Your task to perform on an android device: turn off location history Image 0: 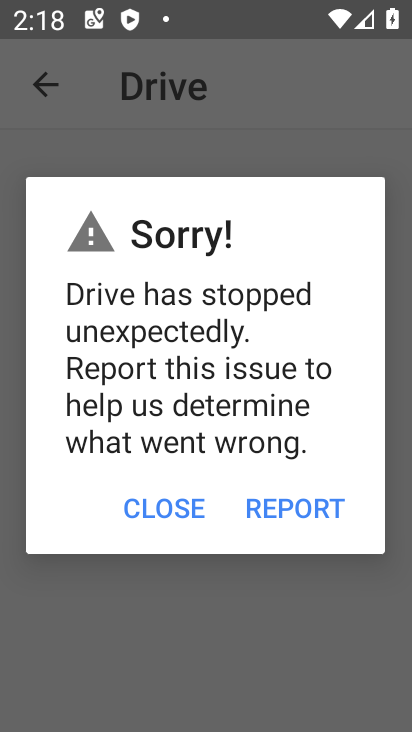
Step 0: press home button
Your task to perform on an android device: turn off location history Image 1: 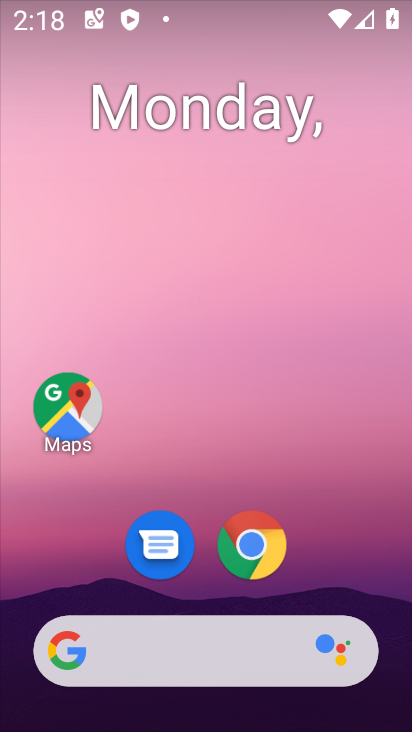
Step 1: drag from (195, 580) to (233, 101)
Your task to perform on an android device: turn off location history Image 2: 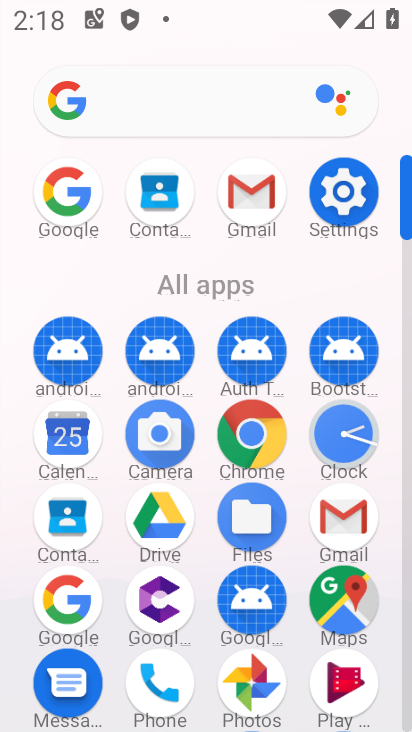
Step 2: click (342, 188)
Your task to perform on an android device: turn off location history Image 3: 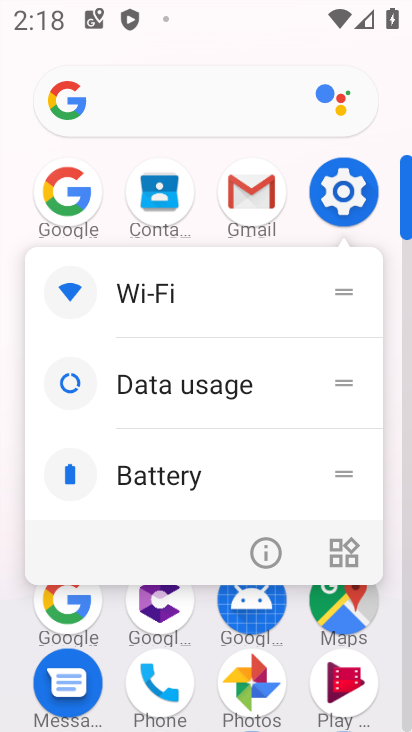
Step 3: click (341, 185)
Your task to perform on an android device: turn off location history Image 4: 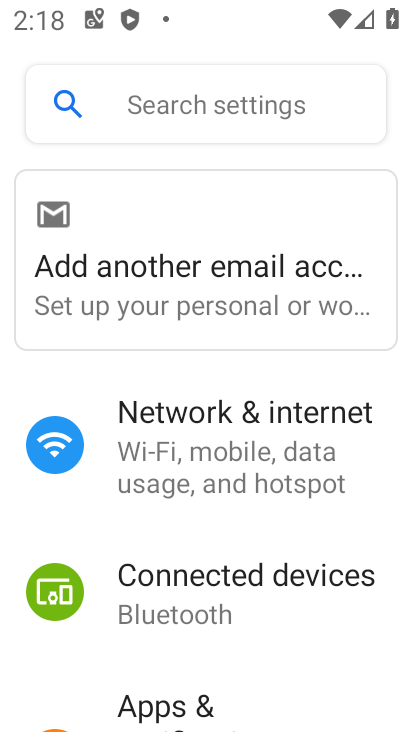
Step 4: drag from (180, 652) to (231, 154)
Your task to perform on an android device: turn off location history Image 5: 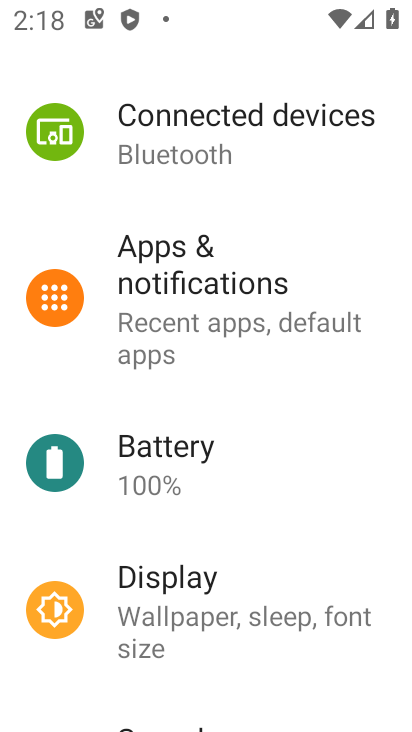
Step 5: drag from (162, 521) to (261, 125)
Your task to perform on an android device: turn off location history Image 6: 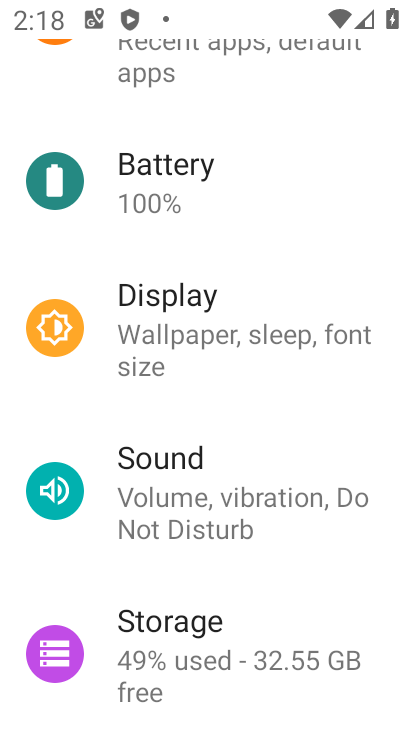
Step 6: drag from (173, 594) to (254, 111)
Your task to perform on an android device: turn off location history Image 7: 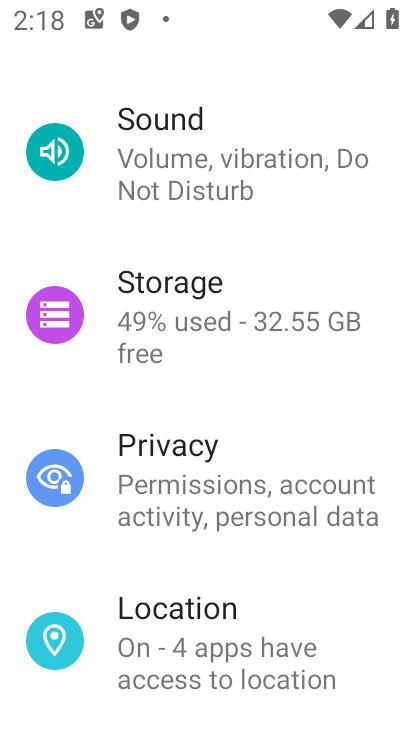
Step 7: click (162, 632)
Your task to perform on an android device: turn off location history Image 8: 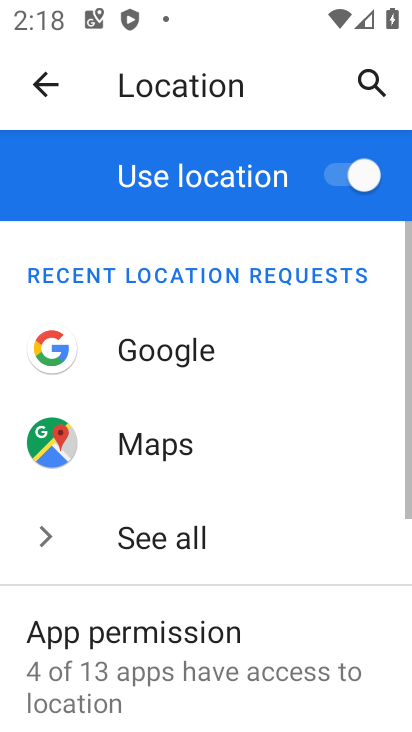
Step 8: drag from (139, 676) to (260, 162)
Your task to perform on an android device: turn off location history Image 9: 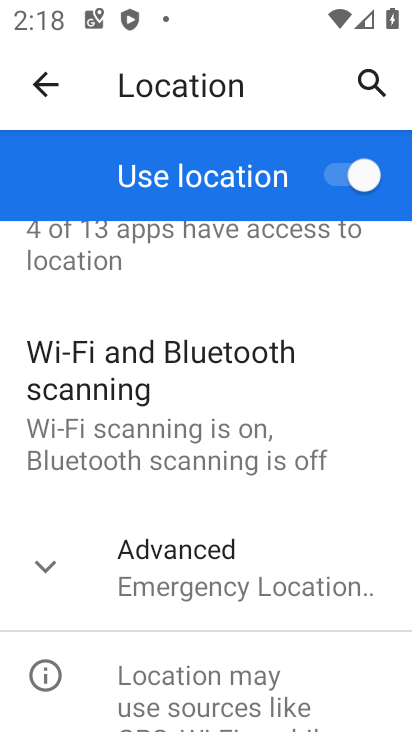
Step 9: click (216, 565)
Your task to perform on an android device: turn off location history Image 10: 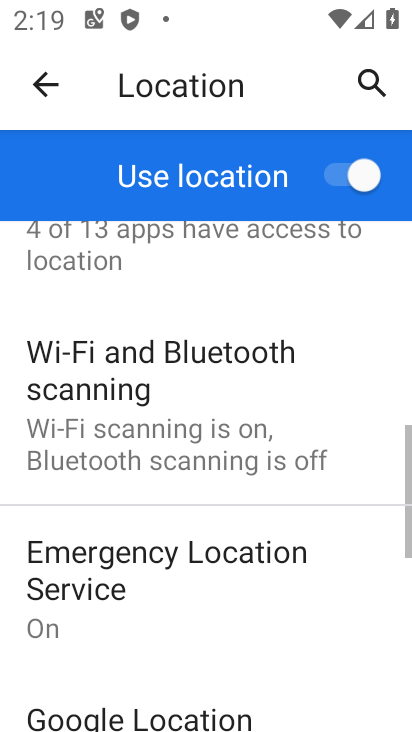
Step 10: drag from (190, 657) to (241, 234)
Your task to perform on an android device: turn off location history Image 11: 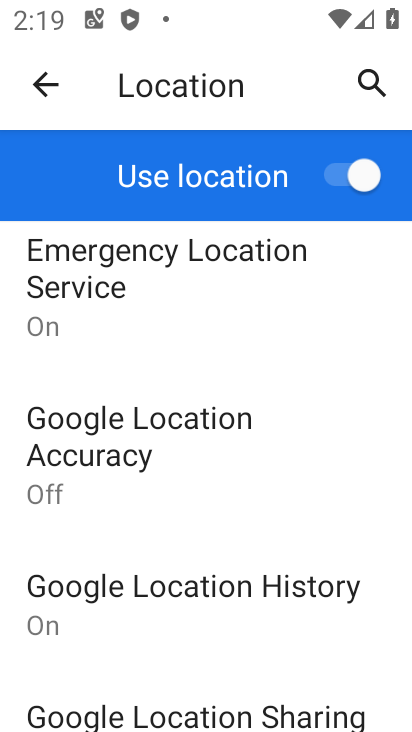
Step 11: click (209, 594)
Your task to perform on an android device: turn off location history Image 12: 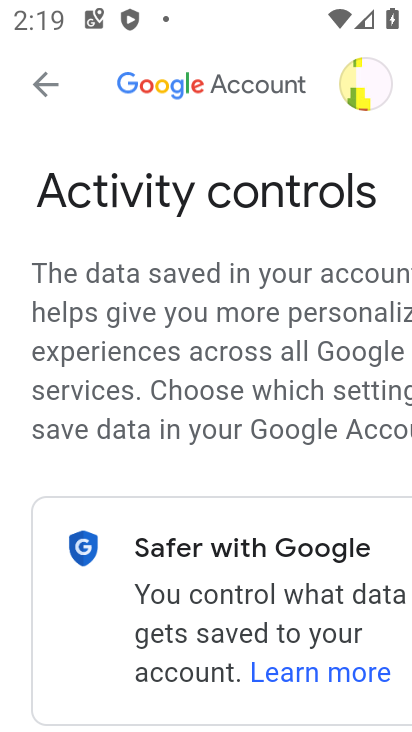
Step 12: drag from (179, 599) to (152, 95)
Your task to perform on an android device: turn off location history Image 13: 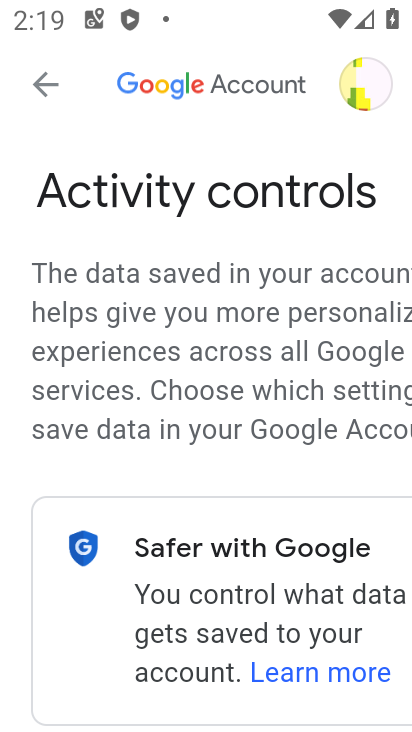
Step 13: drag from (228, 617) to (211, 118)
Your task to perform on an android device: turn off location history Image 14: 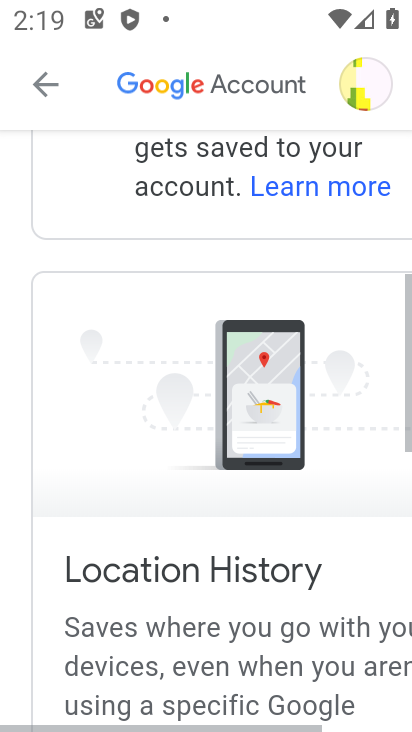
Step 14: drag from (211, 660) to (133, 227)
Your task to perform on an android device: turn off location history Image 15: 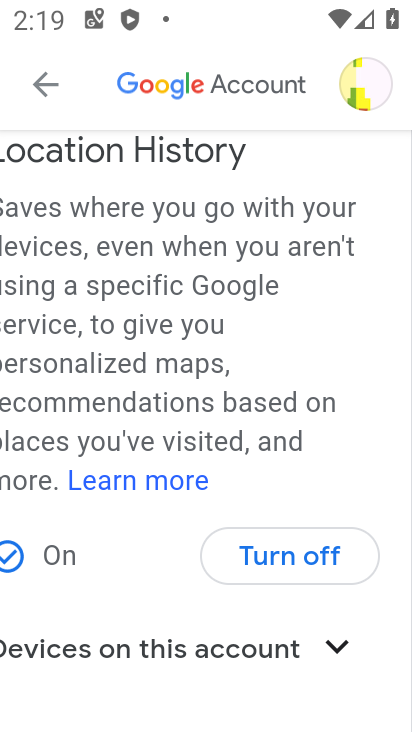
Step 15: click (278, 553)
Your task to perform on an android device: turn off location history Image 16: 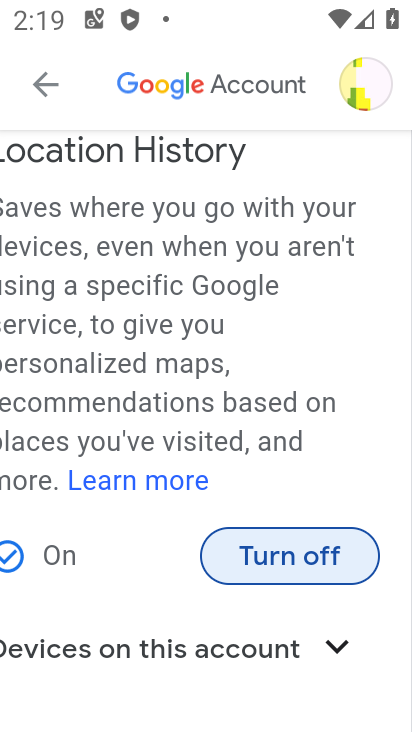
Step 16: click (290, 547)
Your task to perform on an android device: turn off location history Image 17: 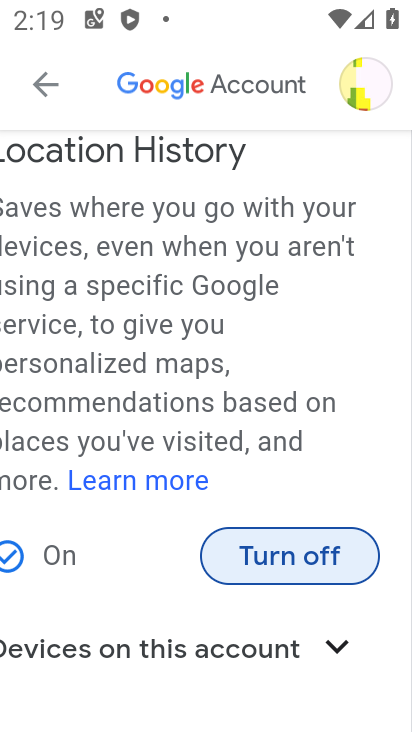
Step 17: click (252, 562)
Your task to perform on an android device: turn off location history Image 18: 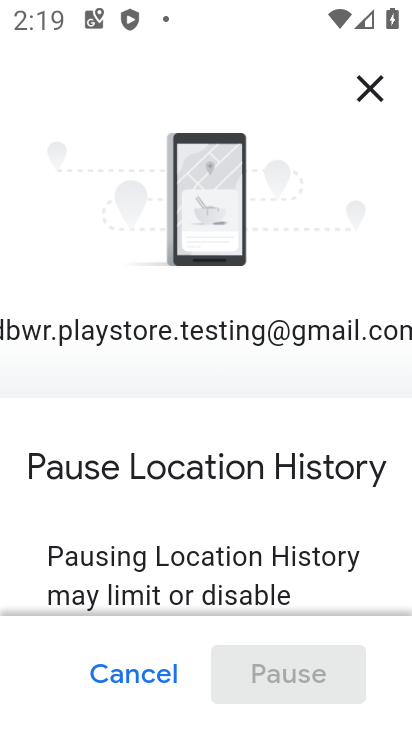
Step 18: drag from (162, 542) to (235, 84)
Your task to perform on an android device: turn off location history Image 19: 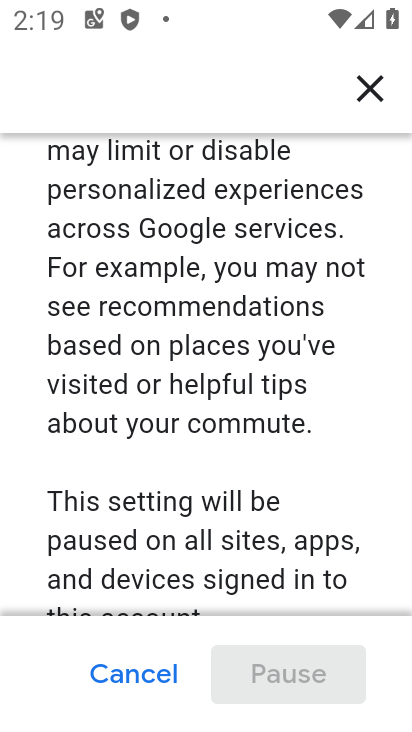
Step 19: drag from (171, 532) to (236, 138)
Your task to perform on an android device: turn off location history Image 20: 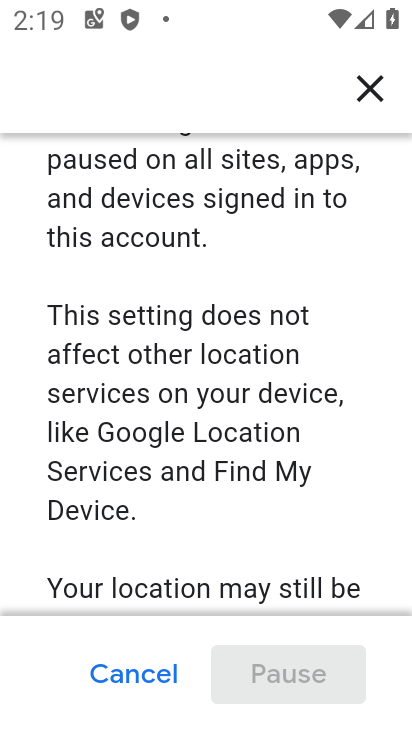
Step 20: drag from (184, 476) to (247, 109)
Your task to perform on an android device: turn off location history Image 21: 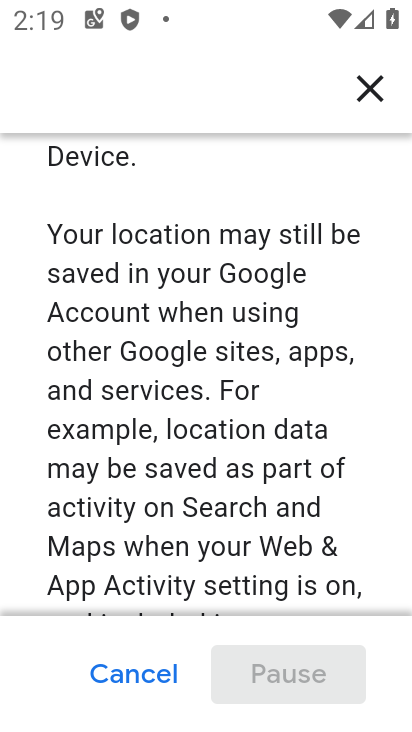
Step 21: drag from (197, 584) to (262, 71)
Your task to perform on an android device: turn off location history Image 22: 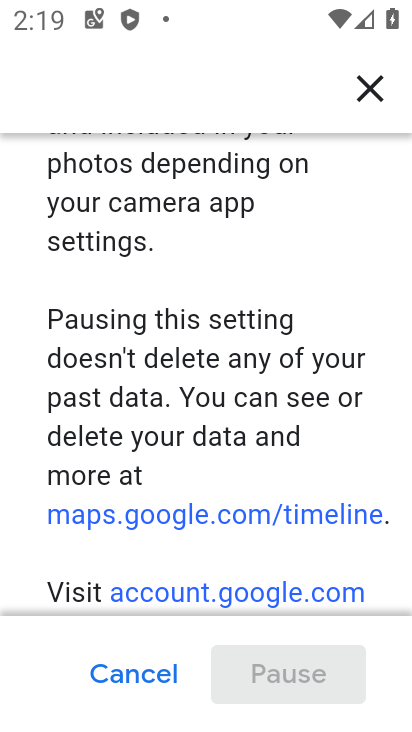
Step 22: drag from (172, 501) to (251, 46)
Your task to perform on an android device: turn off location history Image 23: 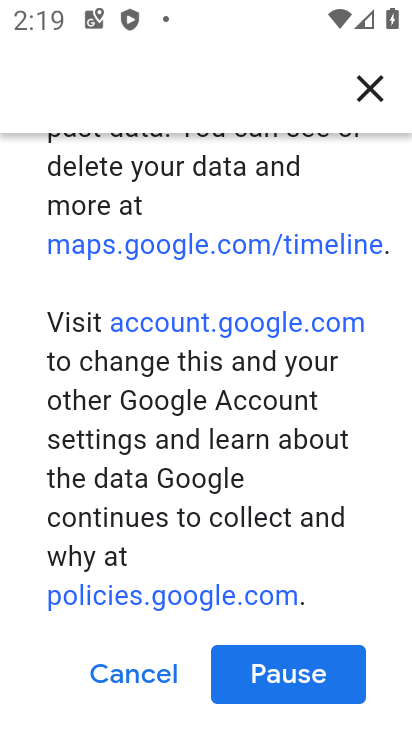
Step 23: click (295, 686)
Your task to perform on an android device: turn off location history Image 24: 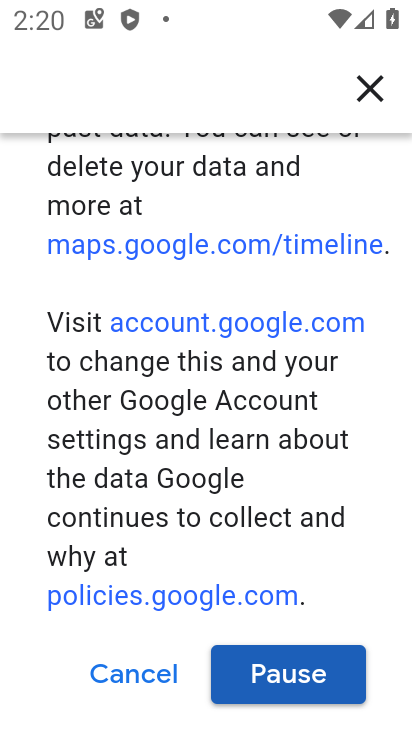
Step 24: click (280, 676)
Your task to perform on an android device: turn off location history Image 25: 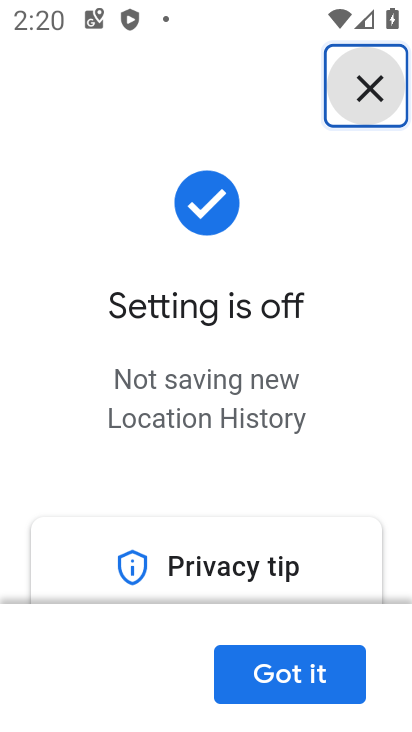
Step 25: click (275, 678)
Your task to perform on an android device: turn off location history Image 26: 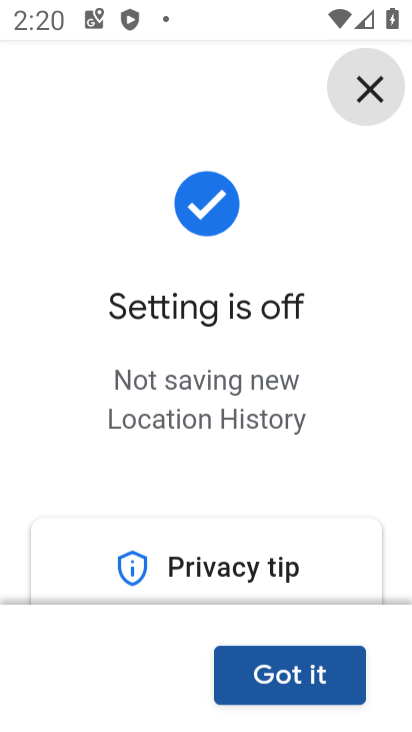
Step 26: task complete